Your task to perform on an android device: Open calendar and show me the fourth week of next month Image 0: 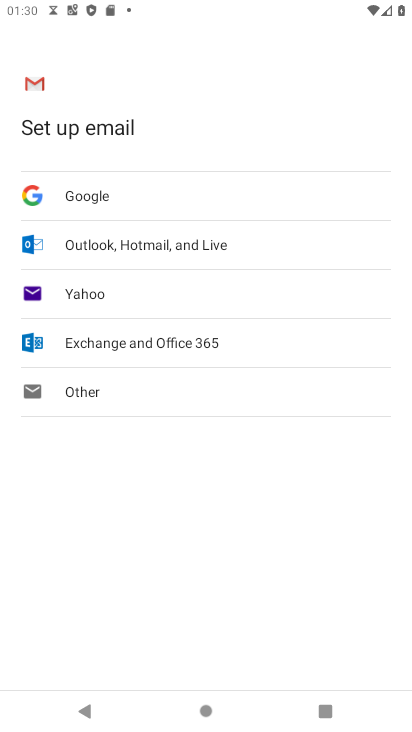
Step 0: press home button
Your task to perform on an android device: Open calendar and show me the fourth week of next month Image 1: 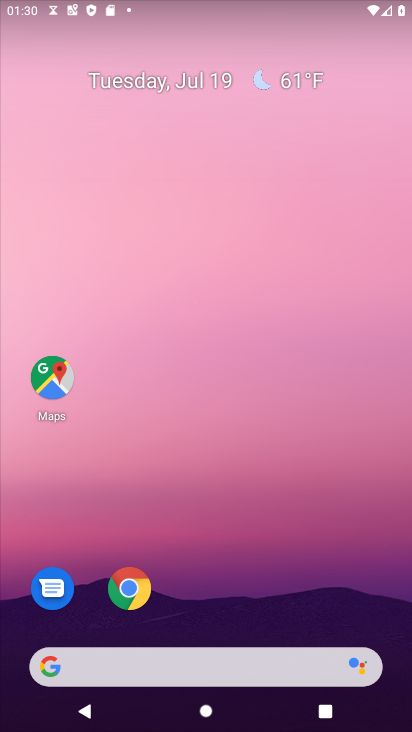
Step 1: drag from (253, 666) to (259, 114)
Your task to perform on an android device: Open calendar and show me the fourth week of next month Image 2: 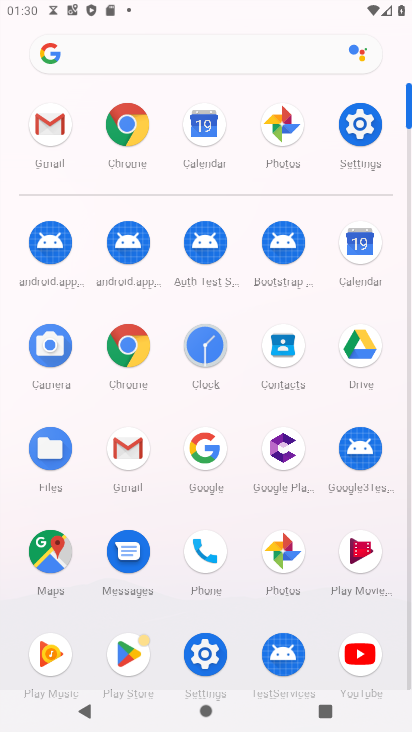
Step 2: click (374, 249)
Your task to perform on an android device: Open calendar and show me the fourth week of next month Image 3: 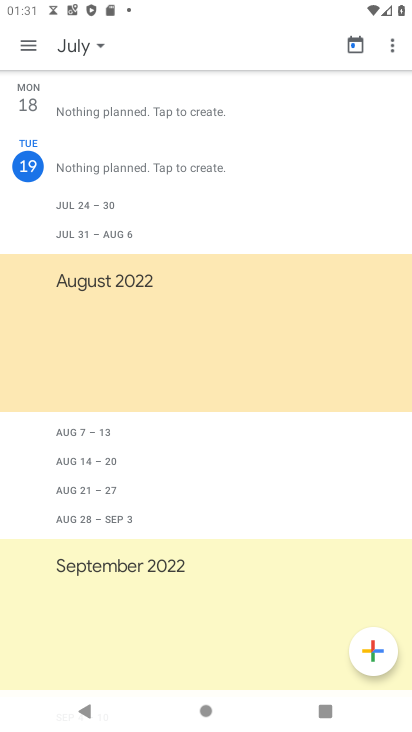
Step 3: click (32, 59)
Your task to perform on an android device: Open calendar and show me the fourth week of next month Image 4: 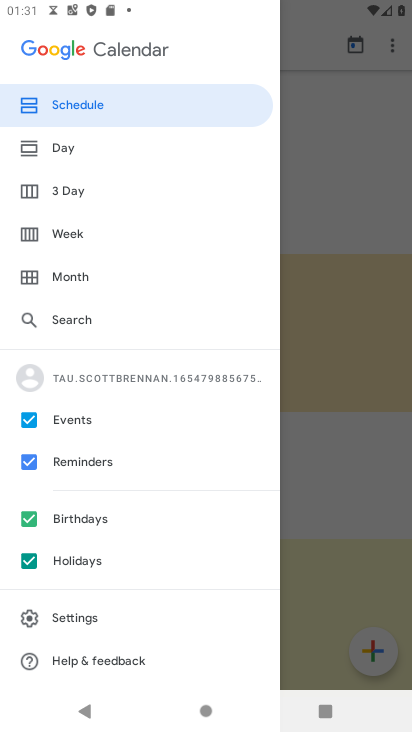
Step 4: click (72, 274)
Your task to perform on an android device: Open calendar and show me the fourth week of next month Image 5: 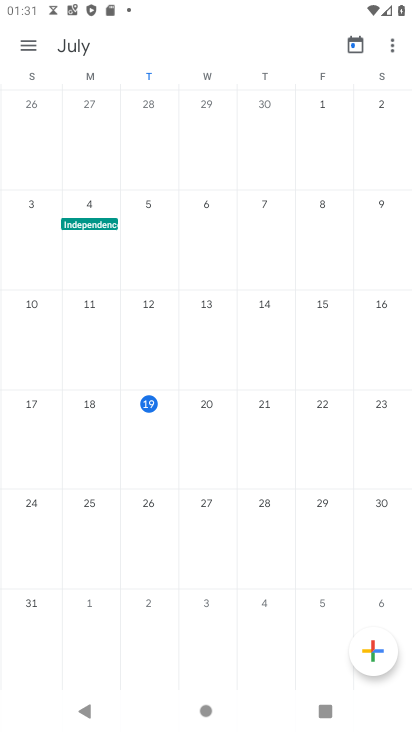
Step 5: drag from (210, 426) to (9, 402)
Your task to perform on an android device: Open calendar and show me the fourth week of next month Image 6: 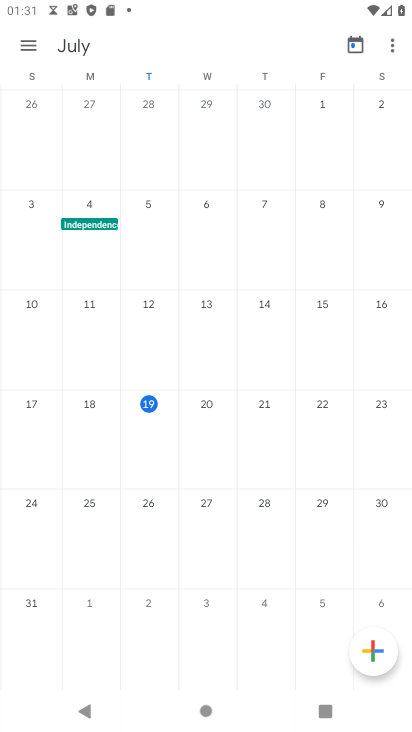
Step 6: drag from (386, 341) to (20, 417)
Your task to perform on an android device: Open calendar and show me the fourth week of next month Image 7: 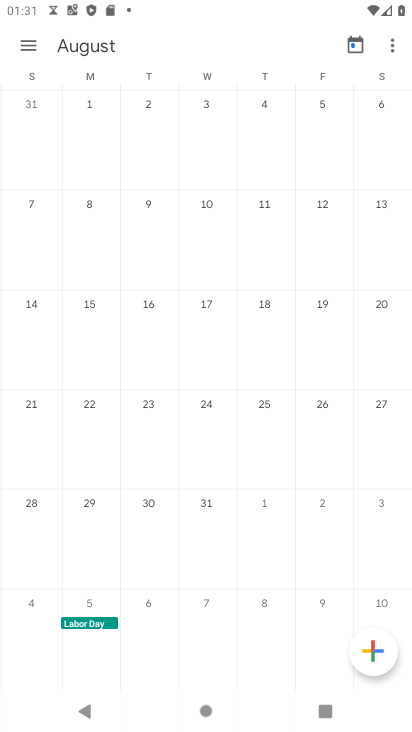
Step 7: click (96, 441)
Your task to perform on an android device: Open calendar and show me the fourth week of next month Image 8: 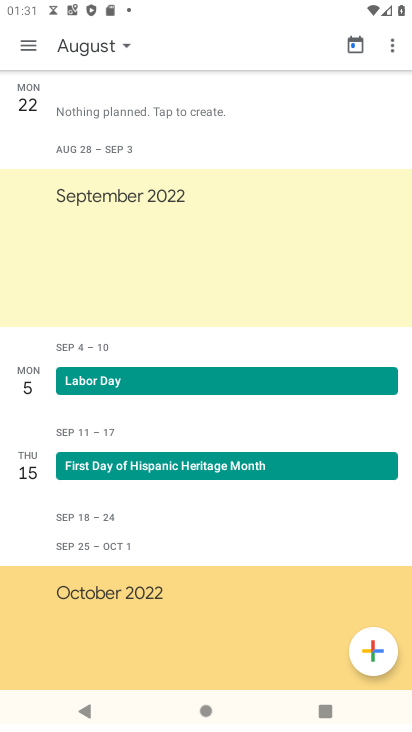
Step 8: task complete